Your task to perform on an android device: Open calendar and show me the fourth week of next month Image 0: 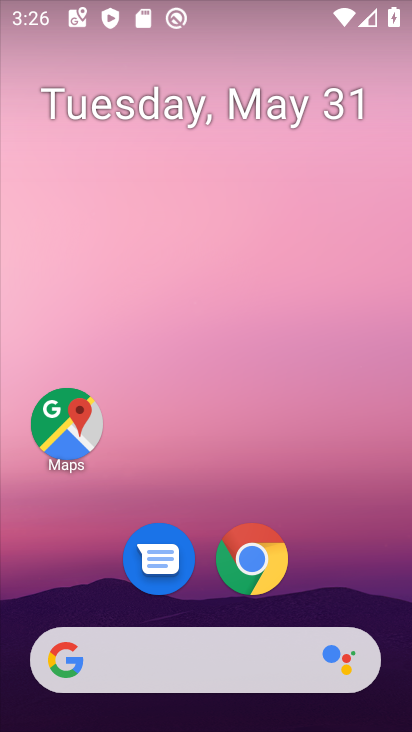
Step 0: drag from (221, 697) to (221, 598)
Your task to perform on an android device: Open calendar and show me the fourth week of next month Image 1: 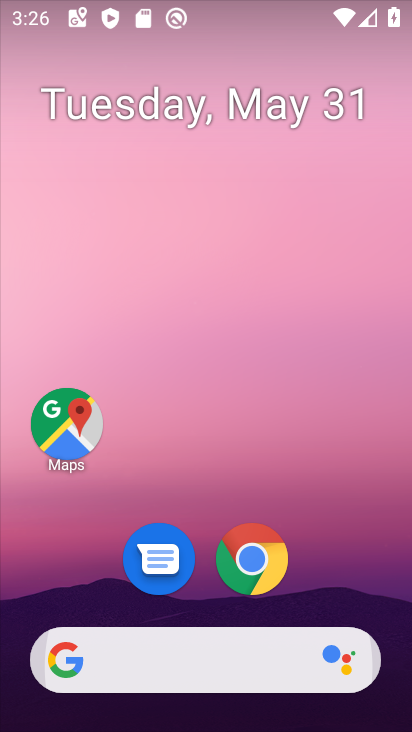
Step 1: drag from (221, 159) to (220, 121)
Your task to perform on an android device: Open calendar and show me the fourth week of next month Image 2: 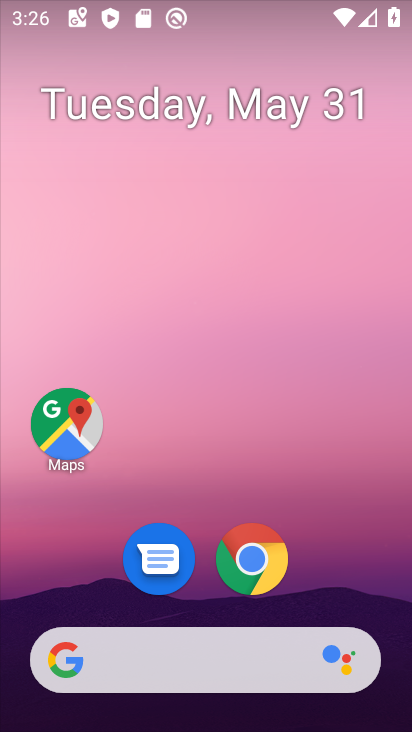
Step 2: drag from (223, 718) to (229, 38)
Your task to perform on an android device: Open calendar and show me the fourth week of next month Image 3: 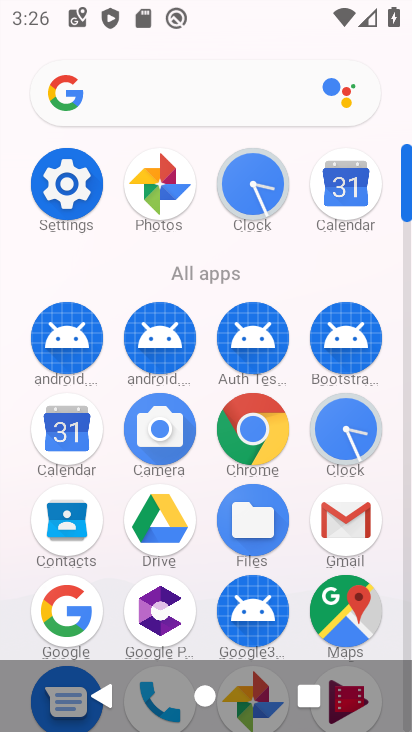
Step 3: click (64, 441)
Your task to perform on an android device: Open calendar and show me the fourth week of next month Image 4: 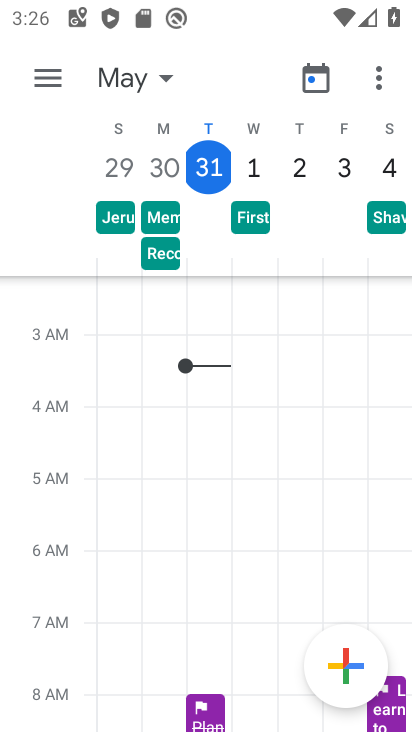
Step 4: click (166, 74)
Your task to perform on an android device: Open calendar and show me the fourth week of next month Image 5: 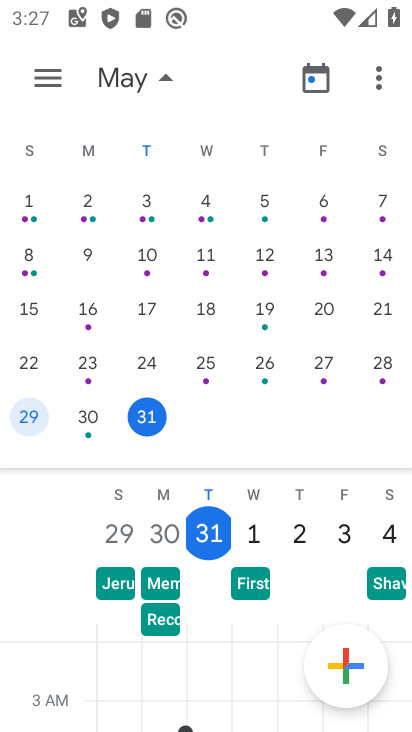
Step 5: drag from (346, 305) to (44, 260)
Your task to perform on an android device: Open calendar and show me the fourth week of next month Image 6: 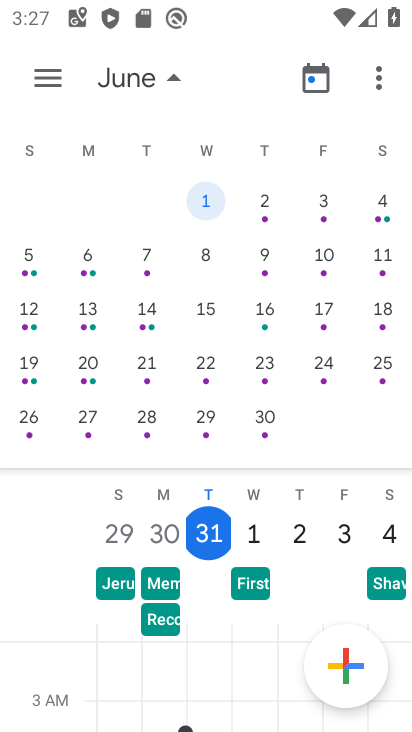
Step 6: click (94, 417)
Your task to perform on an android device: Open calendar and show me the fourth week of next month Image 7: 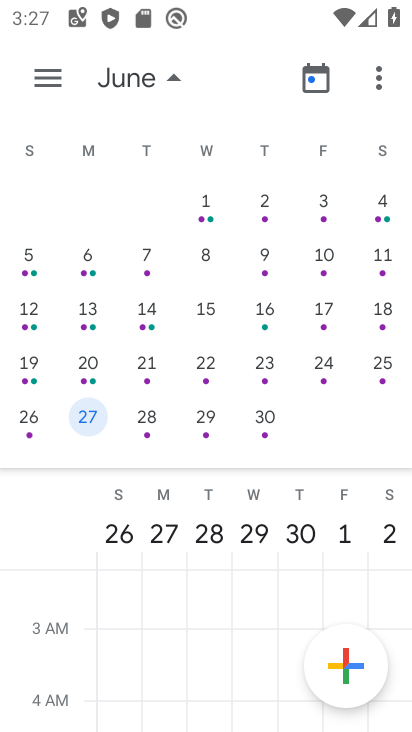
Step 7: click (48, 81)
Your task to perform on an android device: Open calendar and show me the fourth week of next month Image 8: 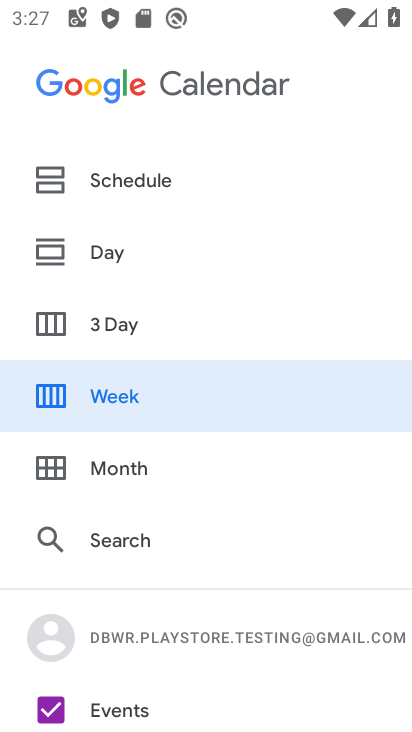
Step 8: click (137, 393)
Your task to perform on an android device: Open calendar and show me the fourth week of next month Image 9: 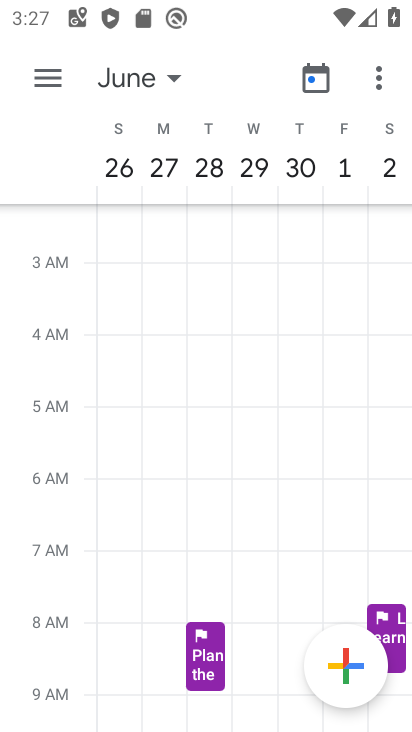
Step 9: task complete